Your task to perform on an android device: open chrome and create a bookmark for the current page Image 0: 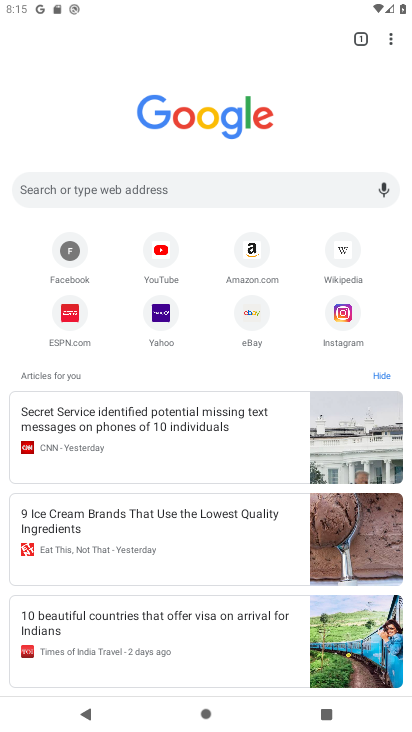
Step 0: click (399, 48)
Your task to perform on an android device: open chrome and create a bookmark for the current page Image 1: 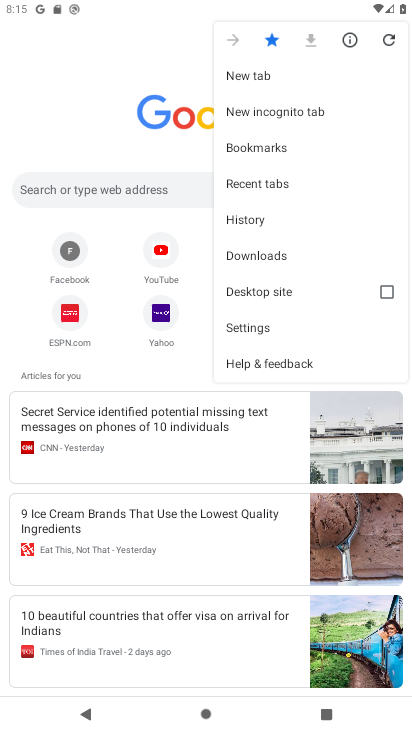
Step 1: task complete